Your task to perform on an android device: turn on improve location accuracy Image 0: 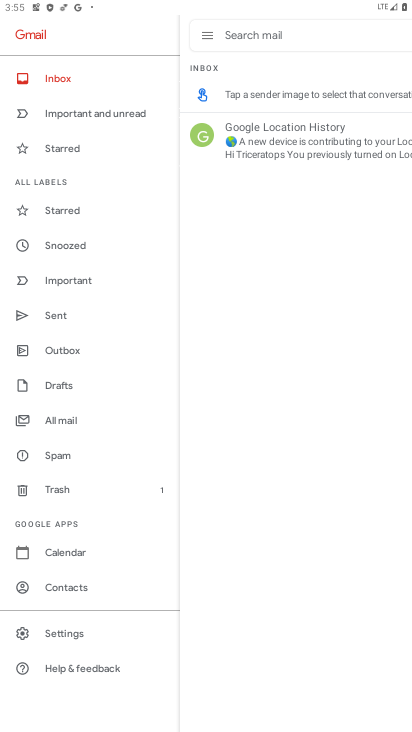
Step 0: press home button
Your task to perform on an android device: turn on improve location accuracy Image 1: 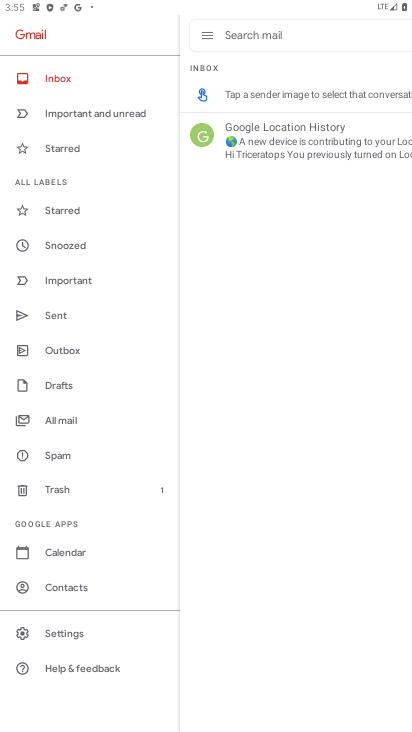
Step 1: press home button
Your task to perform on an android device: turn on improve location accuracy Image 2: 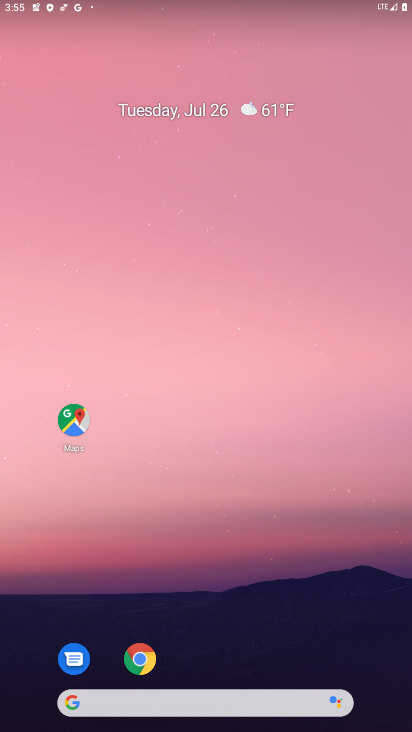
Step 2: drag from (278, 631) to (275, 102)
Your task to perform on an android device: turn on improve location accuracy Image 3: 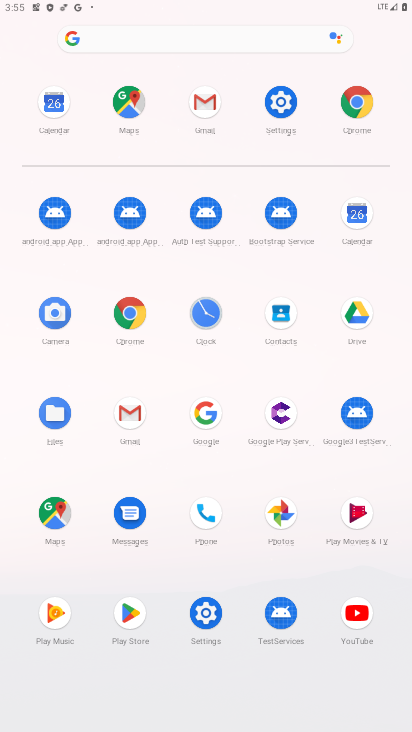
Step 3: click (281, 107)
Your task to perform on an android device: turn on improve location accuracy Image 4: 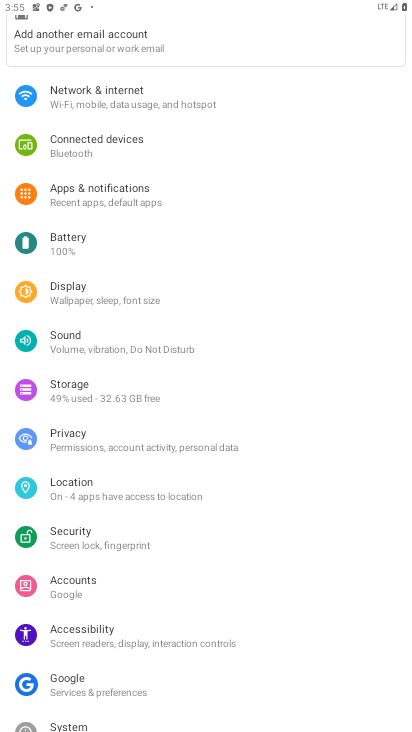
Step 4: click (102, 487)
Your task to perform on an android device: turn on improve location accuracy Image 5: 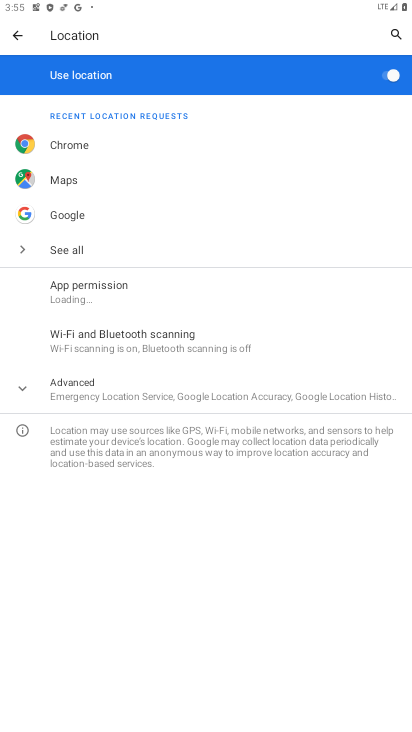
Step 5: click (83, 390)
Your task to perform on an android device: turn on improve location accuracy Image 6: 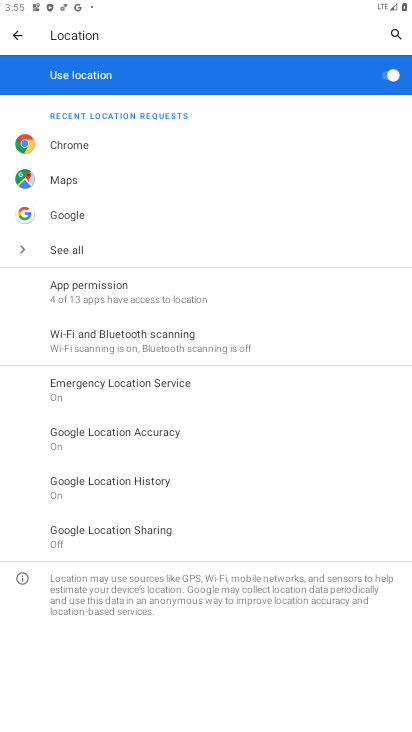
Step 6: click (141, 434)
Your task to perform on an android device: turn on improve location accuracy Image 7: 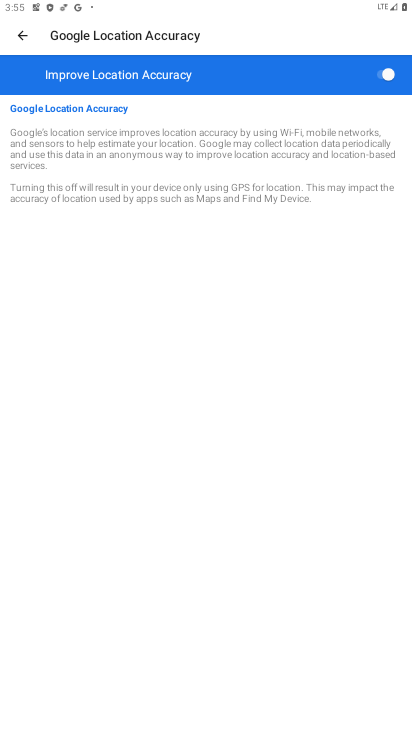
Step 7: task complete